Your task to perform on an android device: set the stopwatch Image 0: 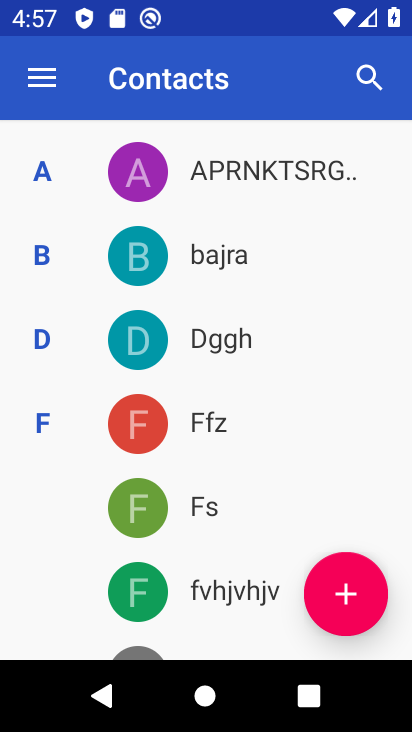
Step 0: press home button
Your task to perform on an android device: set the stopwatch Image 1: 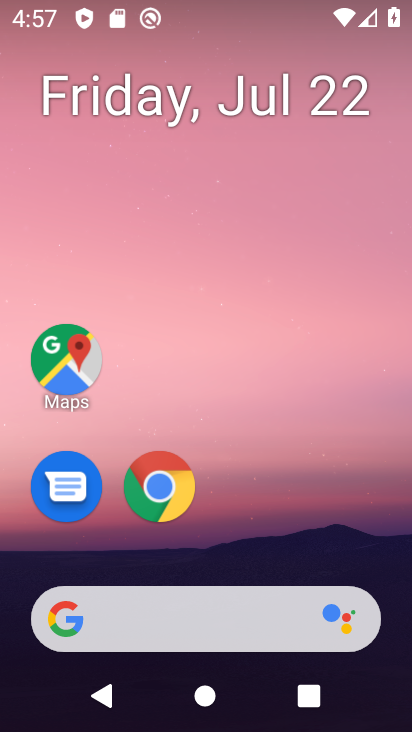
Step 1: drag from (339, 508) to (285, 9)
Your task to perform on an android device: set the stopwatch Image 2: 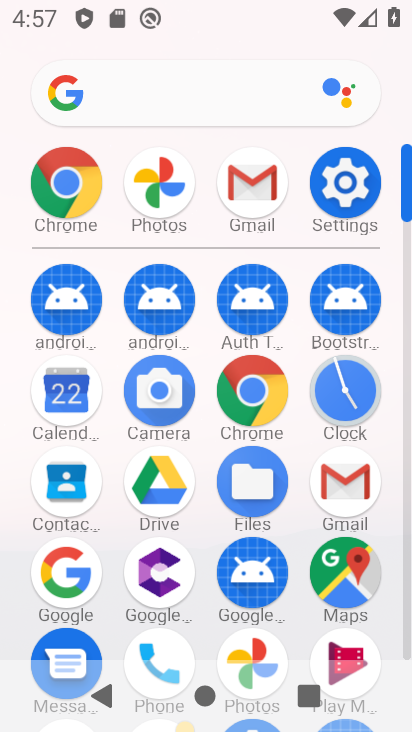
Step 2: click (355, 364)
Your task to perform on an android device: set the stopwatch Image 3: 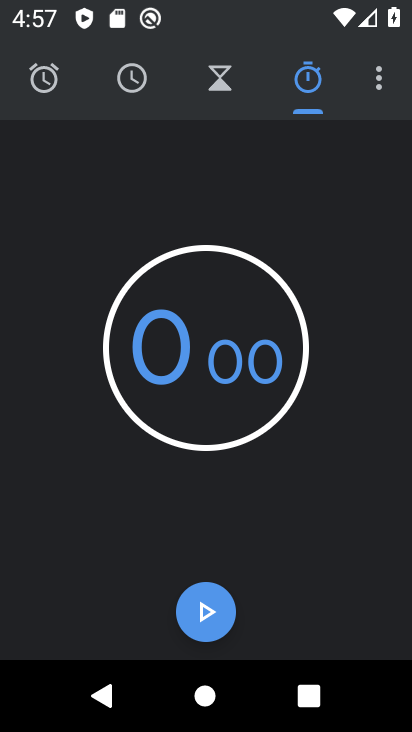
Step 3: click (224, 598)
Your task to perform on an android device: set the stopwatch Image 4: 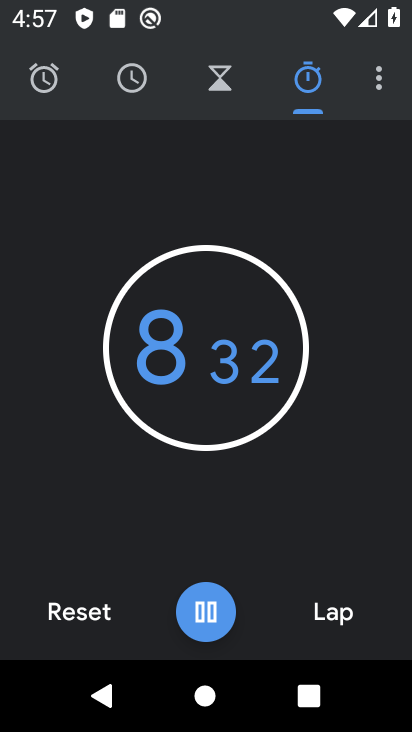
Step 4: task complete